Your task to perform on an android device: Search for dell alienware on amazon, select the first entry, add it to the cart, then select checkout. Image 0: 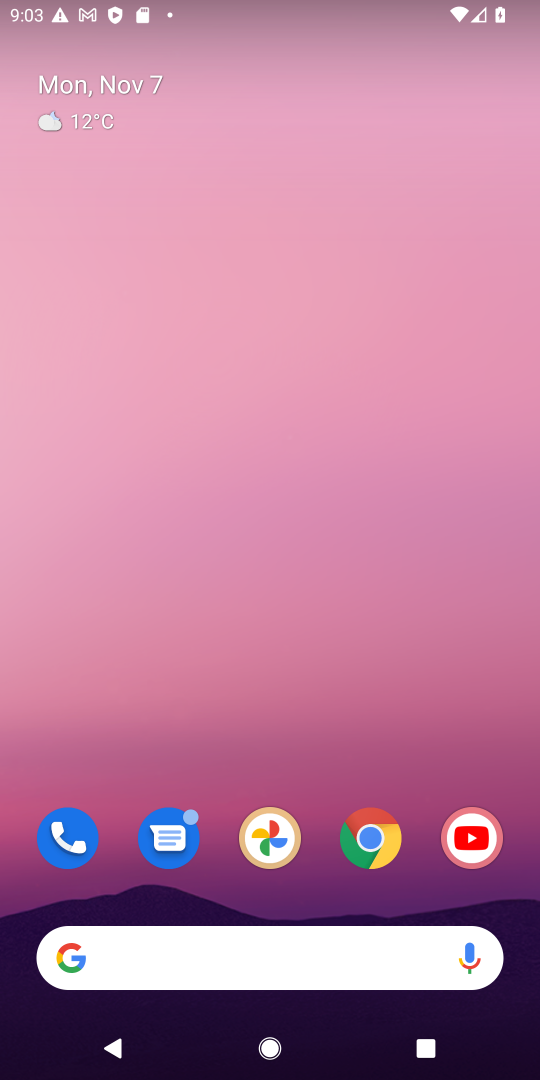
Step 0: click (362, 845)
Your task to perform on an android device: Search for dell alienware on amazon, select the first entry, add it to the cart, then select checkout. Image 1: 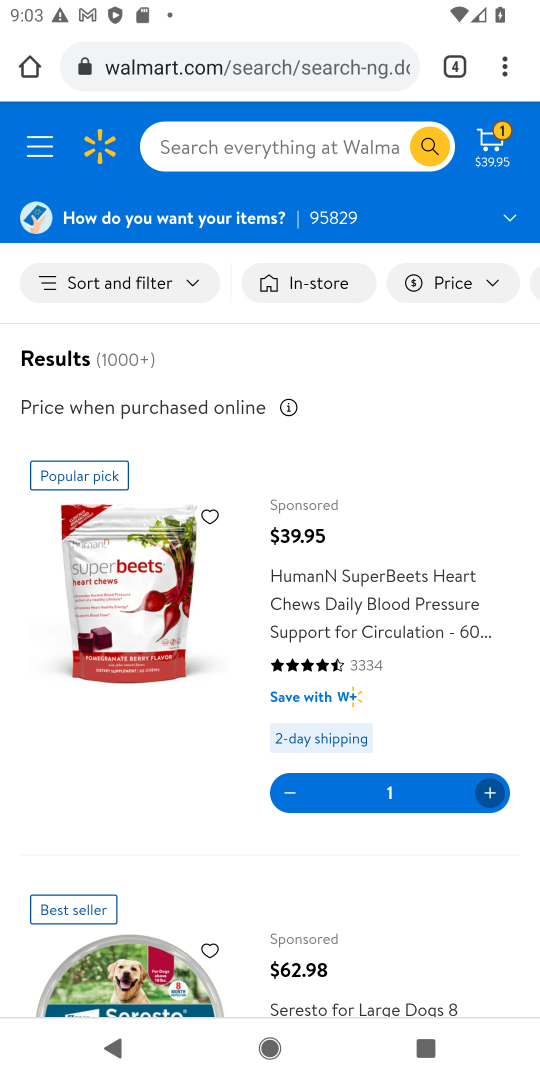
Step 1: click (444, 65)
Your task to perform on an android device: Search for dell alienware on amazon, select the first entry, add it to the cart, then select checkout. Image 2: 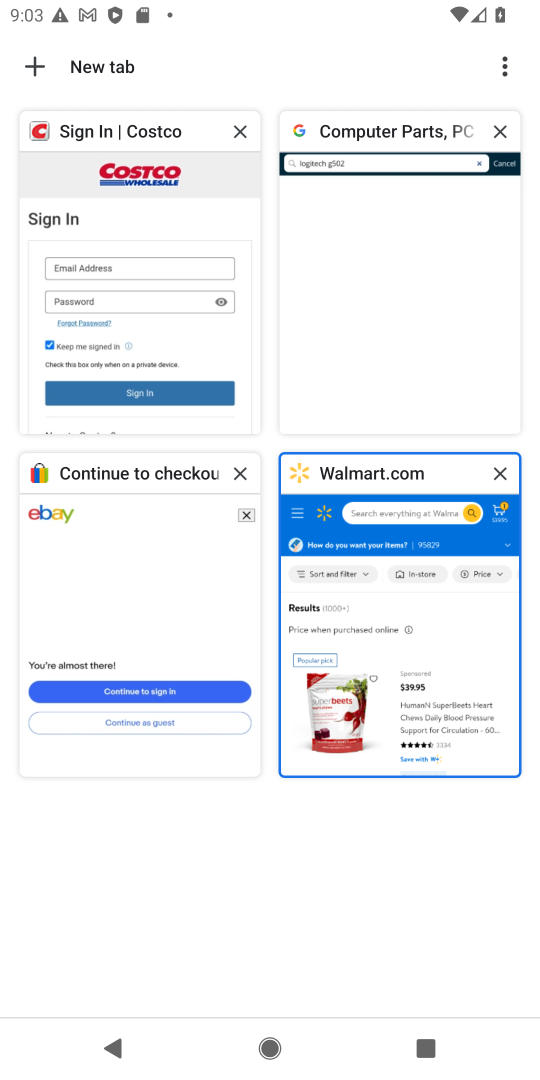
Step 2: click (37, 67)
Your task to perform on an android device: Search for dell alienware on amazon, select the first entry, add it to the cart, then select checkout. Image 3: 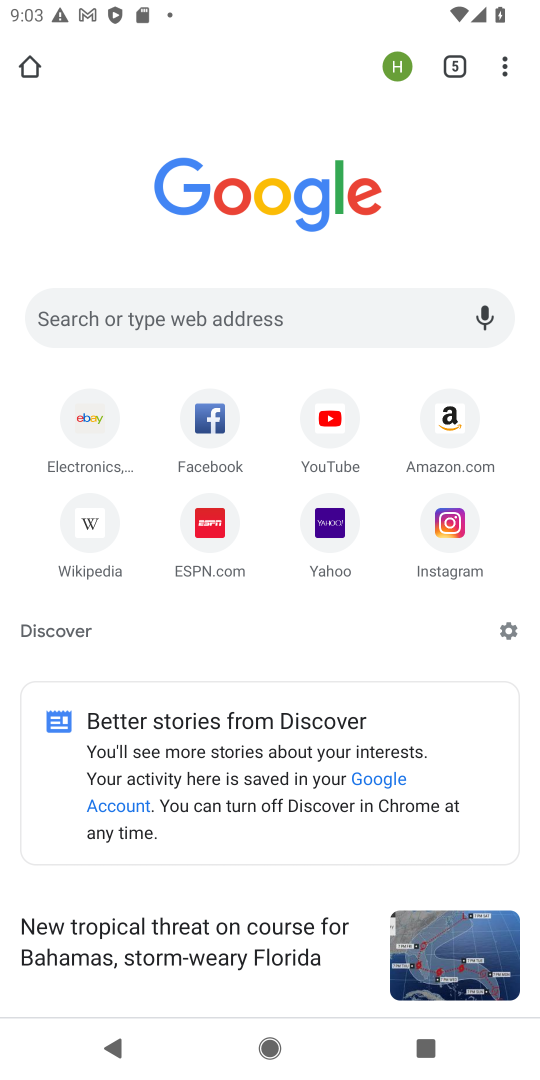
Step 3: click (228, 326)
Your task to perform on an android device: Search for dell alienware on amazon, select the first entry, add it to the cart, then select checkout. Image 4: 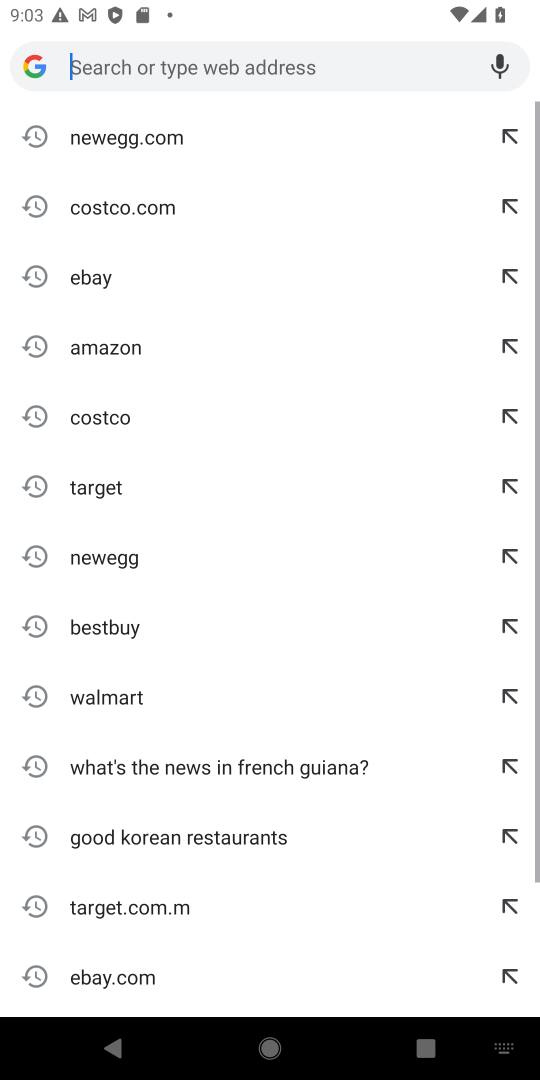
Step 4: click (121, 348)
Your task to perform on an android device: Search for dell alienware on amazon, select the first entry, add it to the cart, then select checkout. Image 5: 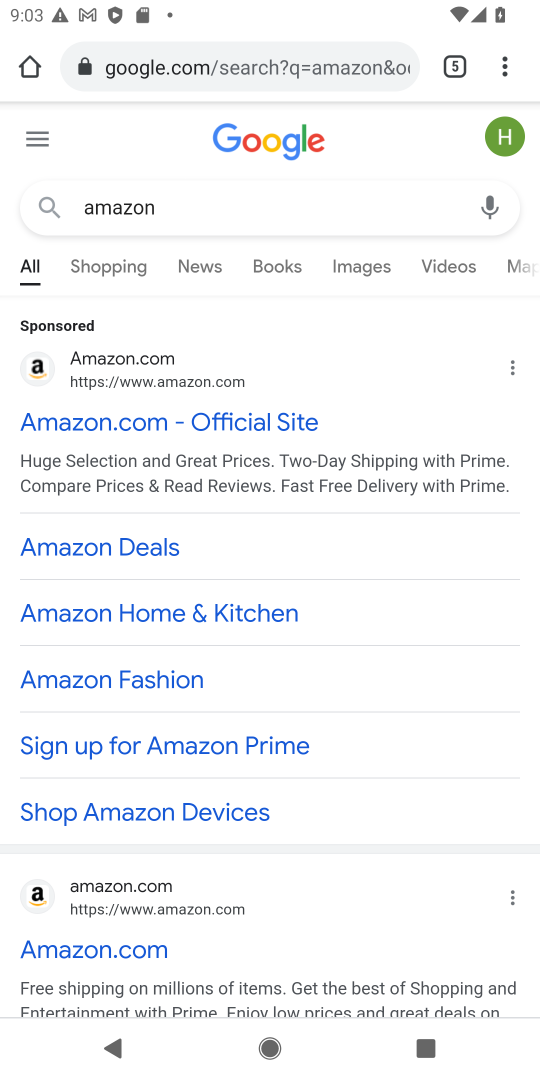
Step 5: click (145, 422)
Your task to perform on an android device: Search for dell alienware on amazon, select the first entry, add it to the cart, then select checkout. Image 6: 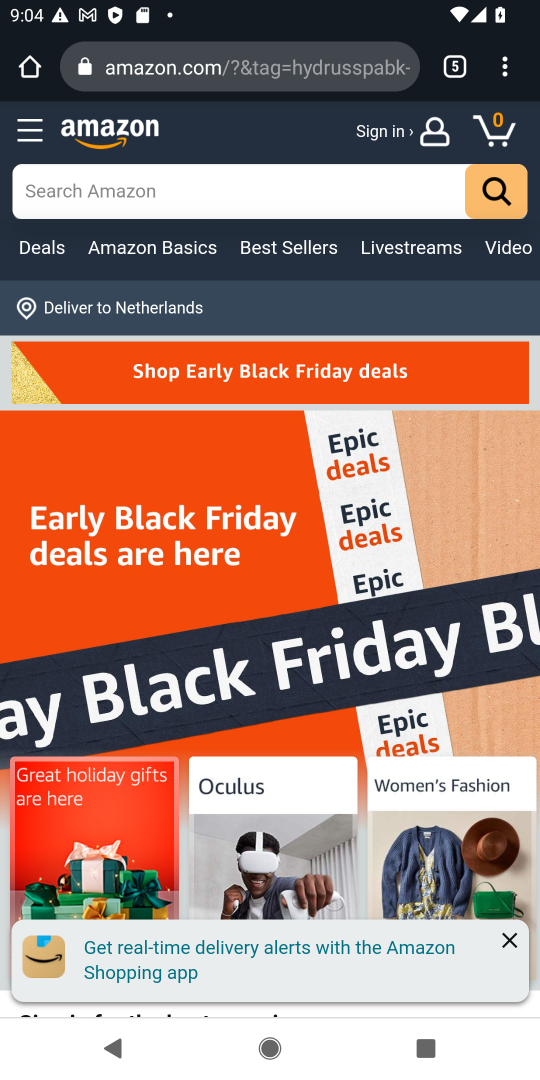
Step 6: click (180, 187)
Your task to perform on an android device: Search for dell alienware on amazon, select the first entry, add it to the cart, then select checkout. Image 7: 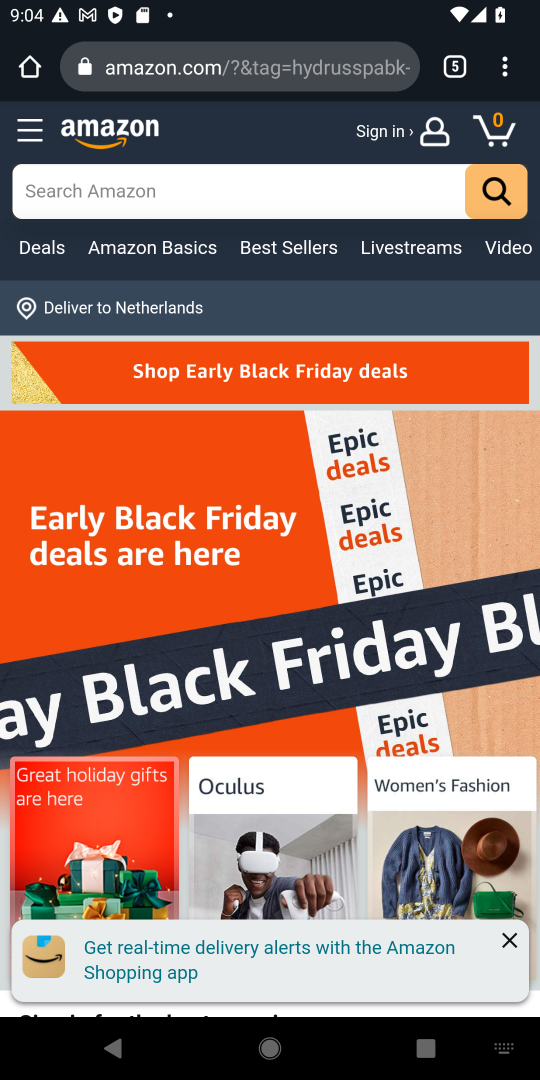
Step 7: type "dell alienware"
Your task to perform on an android device: Search for dell alienware on amazon, select the first entry, add it to the cart, then select checkout. Image 8: 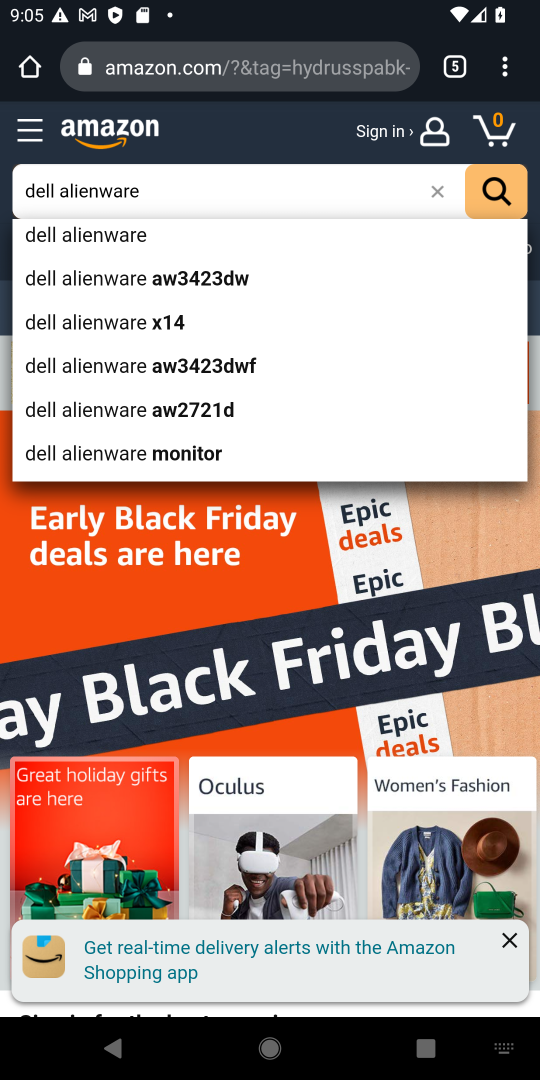
Step 8: click (50, 246)
Your task to perform on an android device: Search for dell alienware on amazon, select the first entry, add it to the cart, then select checkout. Image 9: 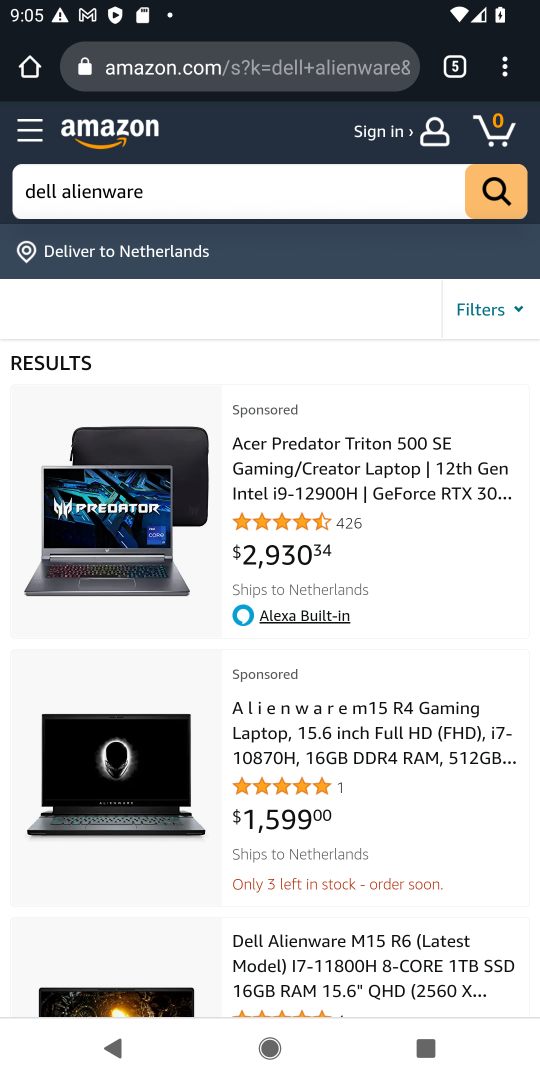
Step 9: click (350, 423)
Your task to perform on an android device: Search for dell alienware on amazon, select the first entry, add it to the cart, then select checkout. Image 10: 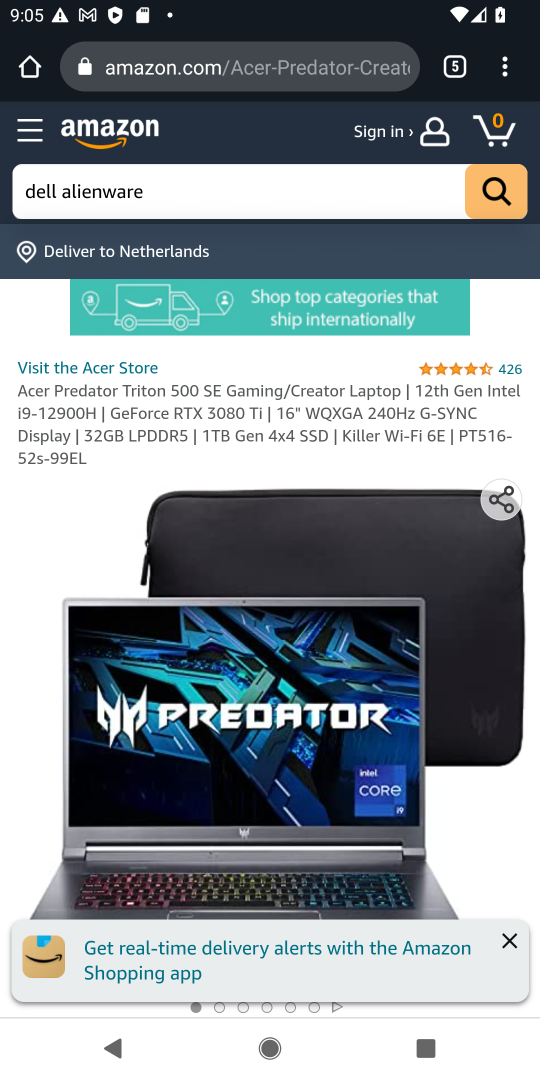
Step 10: drag from (468, 885) to (446, 546)
Your task to perform on an android device: Search for dell alienware on amazon, select the first entry, add it to the cart, then select checkout. Image 11: 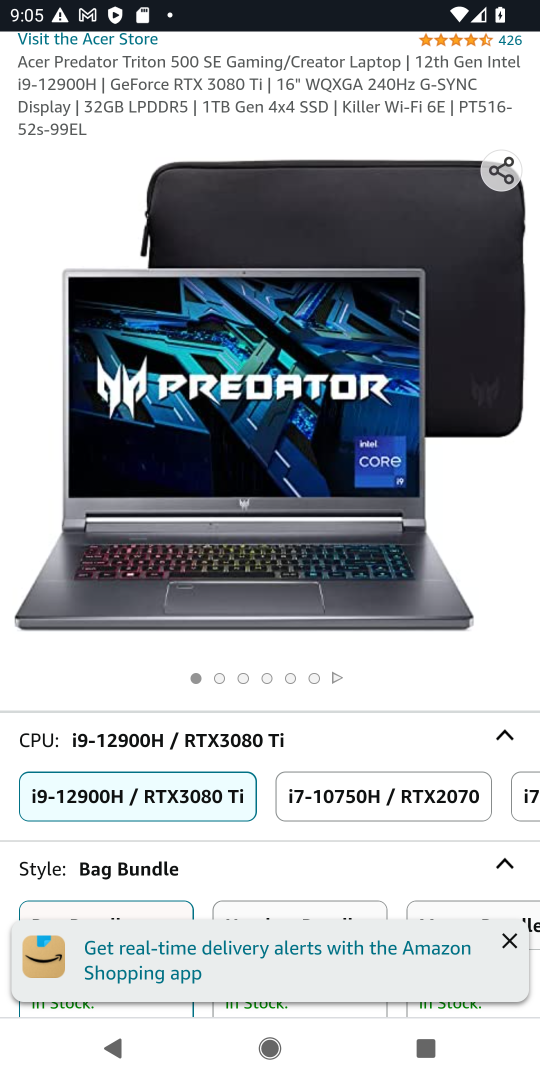
Step 11: drag from (282, 842) to (267, 444)
Your task to perform on an android device: Search for dell alienware on amazon, select the first entry, add it to the cart, then select checkout. Image 12: 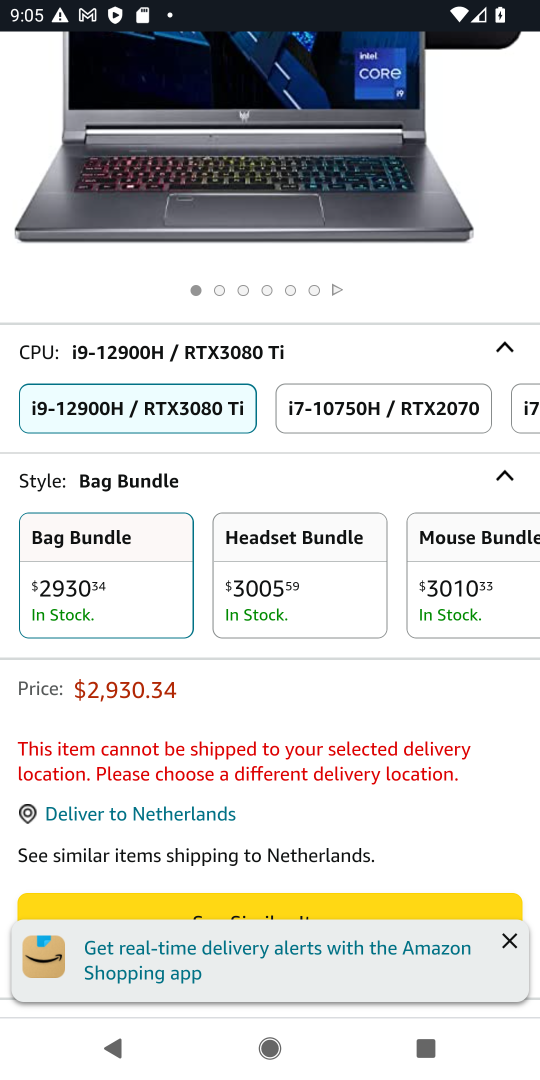
Step 12: drag from (298, 858) to (293, 601)
Your task to perform on an android device: Search for dell alienware on amazon, select the first entry, add it to the cart, then select checkout. Image 13: 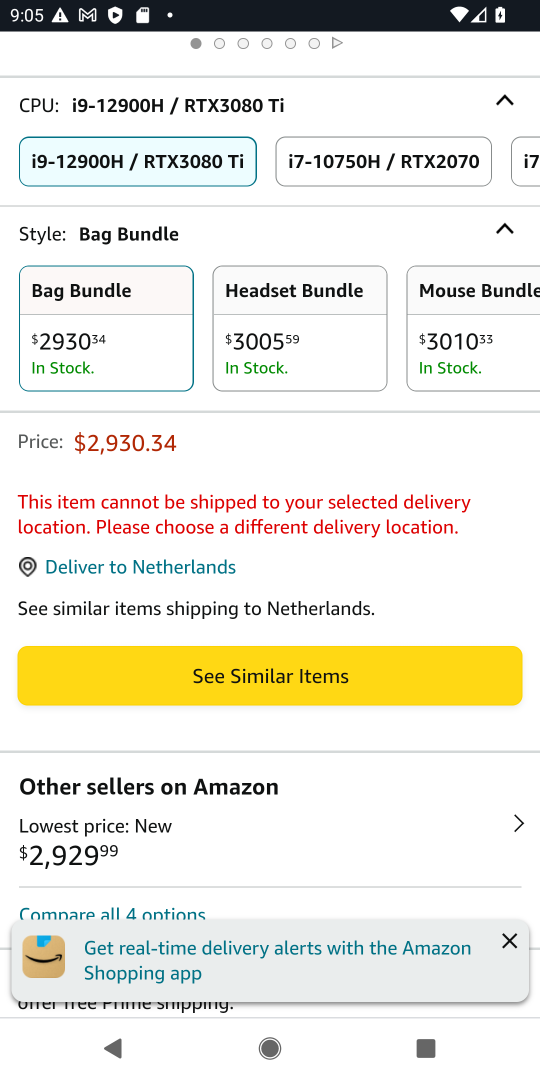
Step 13: click (285, 686)
Your task to perform on an android device: Search for dell alienware on amazon, select the first entry, add it to the cart, then select checkout. Image 14: 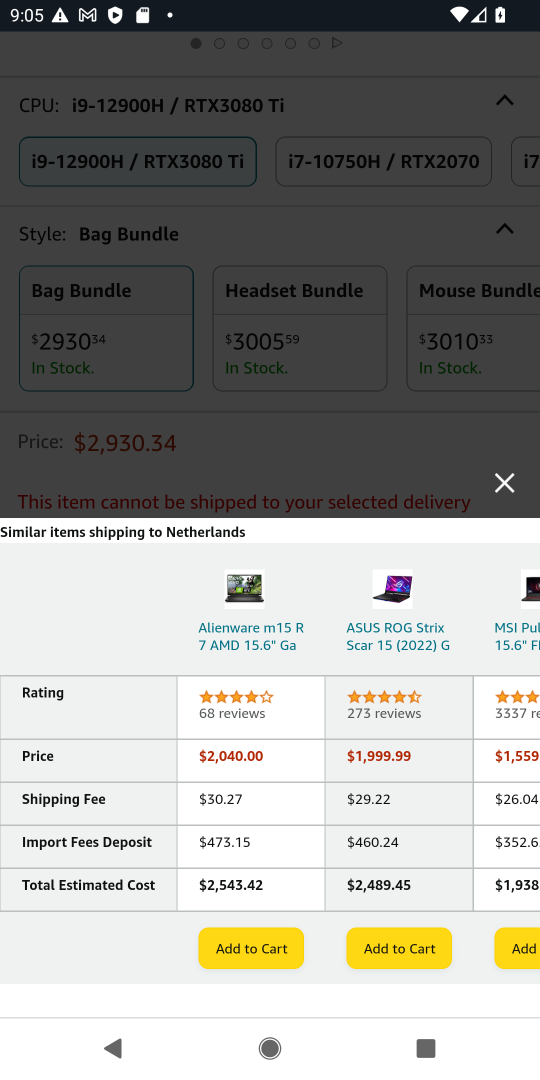
Step 14: click (254, 949)
Your task to perform on an android device: Search for dell alienware on amazon, select the first entry, add it to the cart, then select checkout. Image 15: 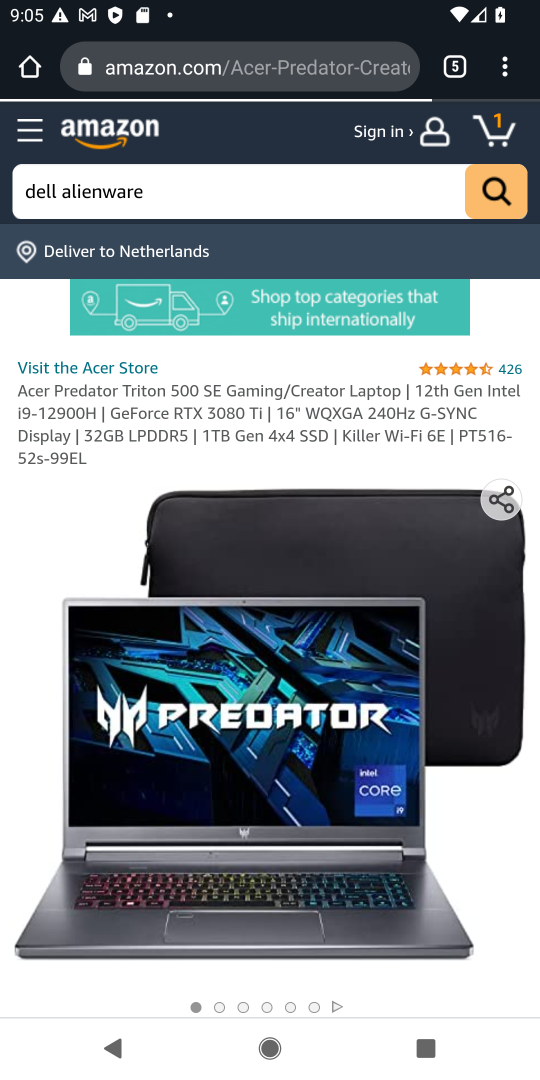
Step 15: click (491, 127)
Your task to perform on an android device: Search for dell alienware on amazon, select the first entry, add it to the cart, then select checkout. Image 16: 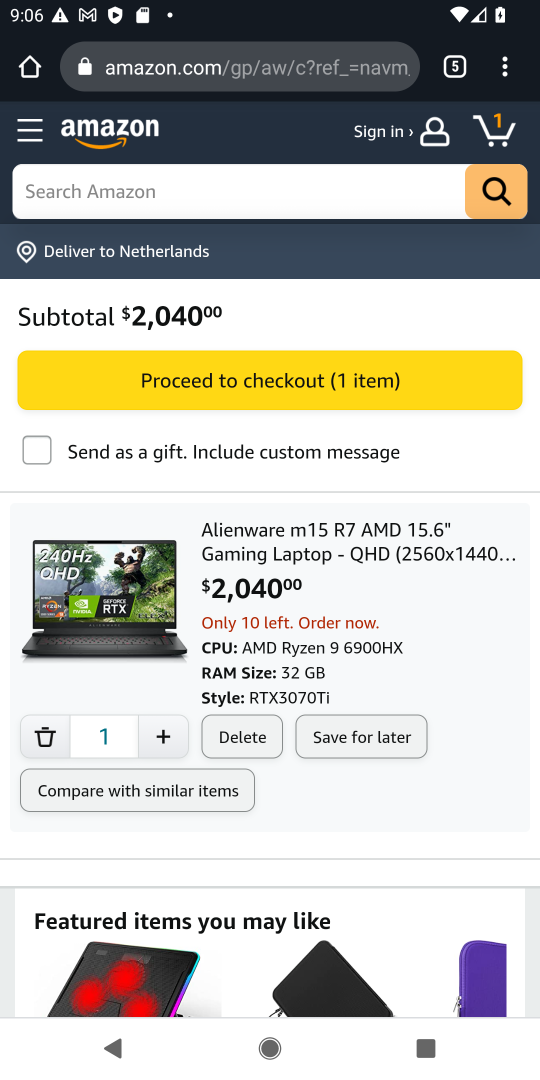
Step 16: click (313, 384)
Your task to perform on an android device: Search for dell alienware on amazon, select the first entry, add it to the cart, then select checkout. Image 17: 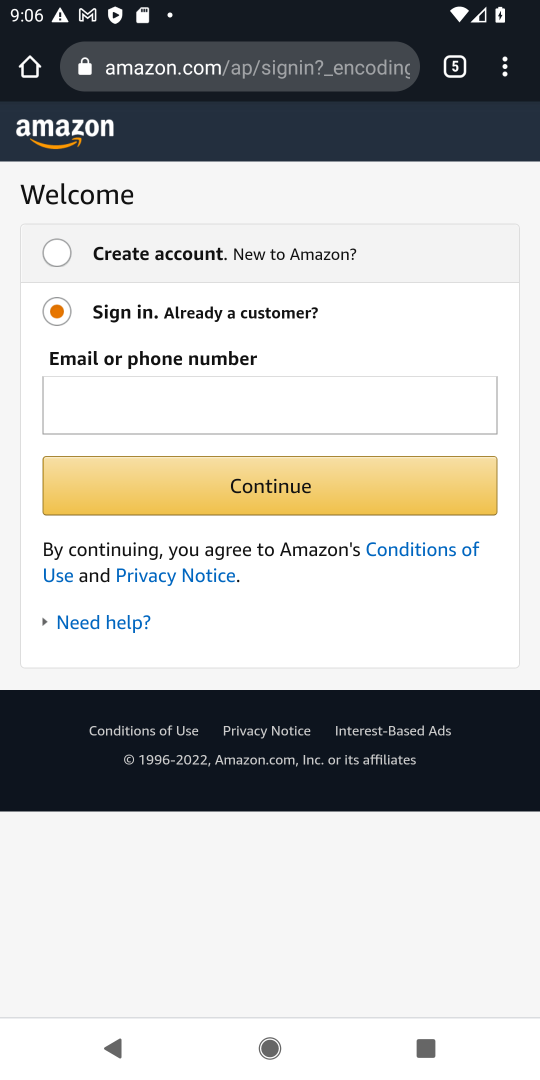
Step 17: task complete